Your task to perform on an android device: Search for seafood restaurants on Google Maps Image 0: 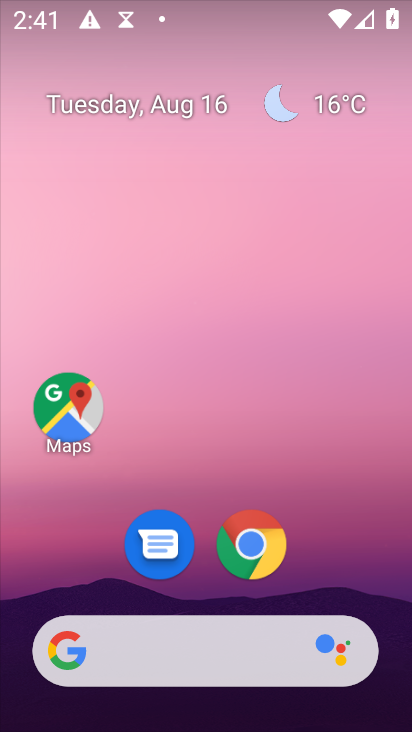
Step 0: click (66, 407)
Your task to perform on an android device: Search for seafood restaurants on Google Maps Image 1: 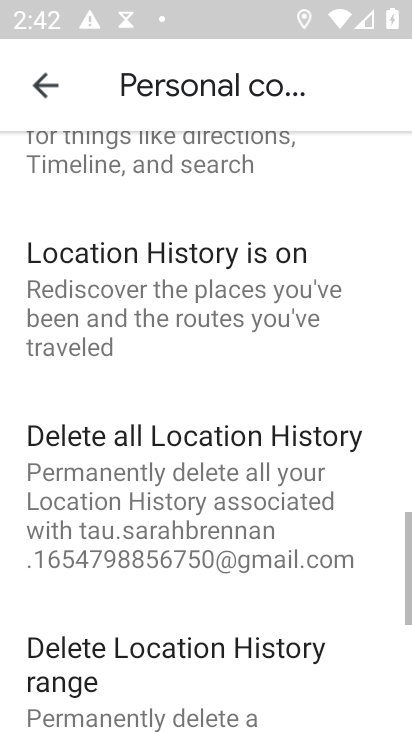
Step 1: press back button
Your task to perform on an android device: Search for seafood restaurants on Google Maps Image 2: 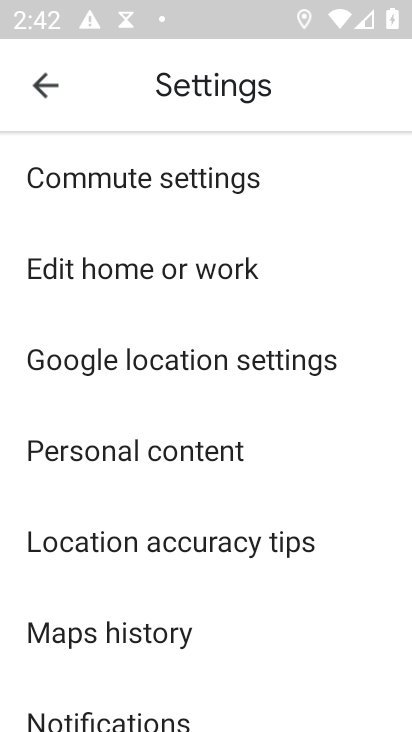
Step 2: press back button
Your task to perform on an android device: Search for seafood restaurants on Google Maps Image 3: 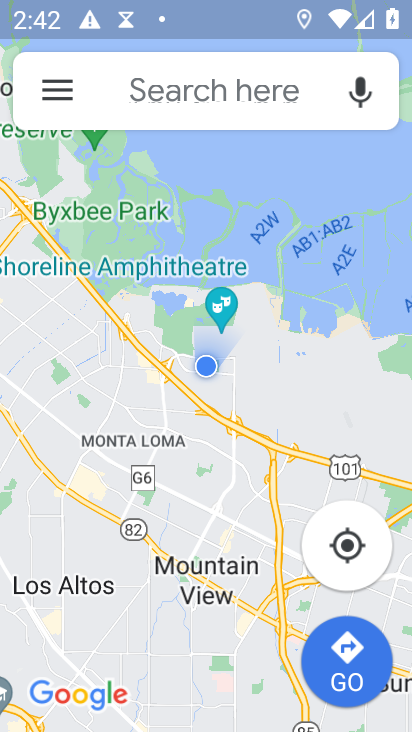
Step 3: click (189, 102)
Your task to perform on an android device: Search for seafood restaurants on Google Maps Image 4: 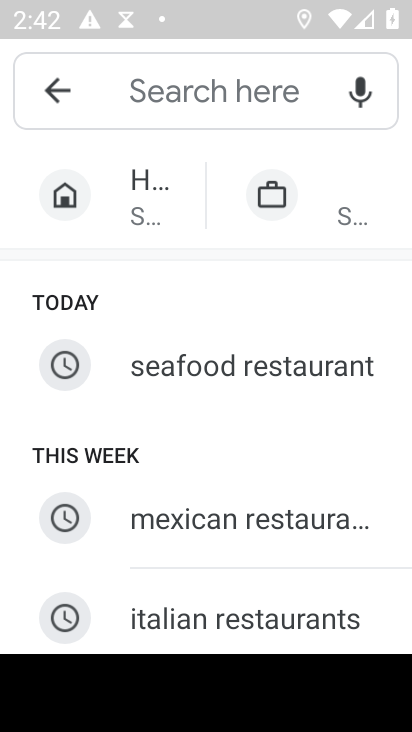
Step 4: type "seafood restaurants"
Your task to perform on an android device: Search for seafood restaurants on Google Maps Image 5: 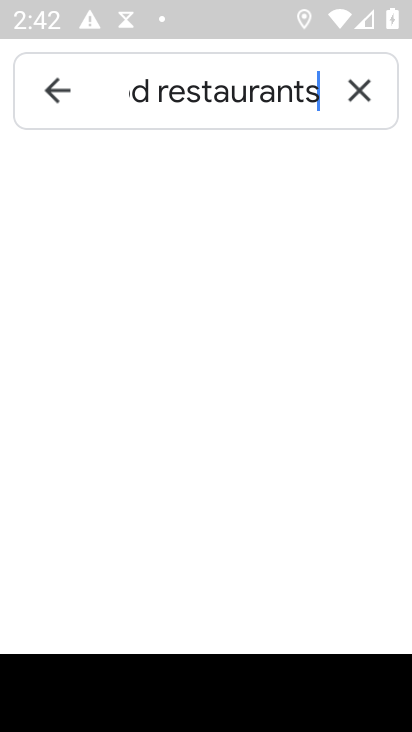
Step 5: type ""
Your task to perform on an android device: Search for seafood restaurants on Google Maps Image 6: 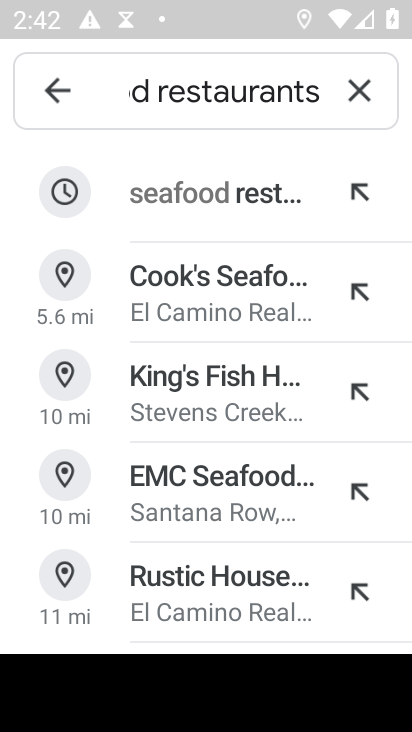
Step 6: click (200, 199)
Your task to perform on an android device: Search for seafood restaurants on Google Maps Image 7: 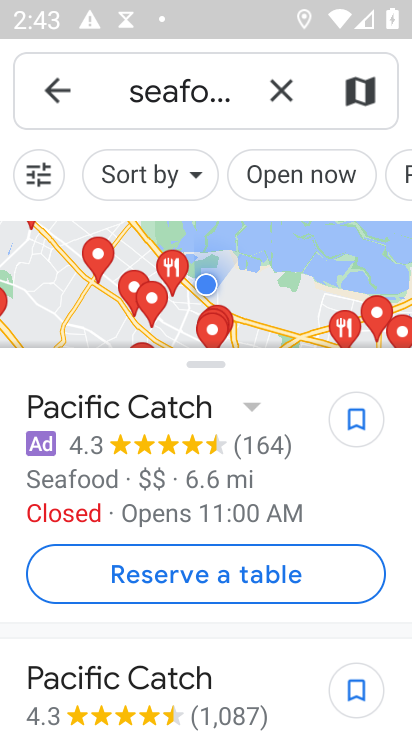
Step 7: task complete